Your task to perform on an android device: Search for vegetarian restaurants on Maps Image 0: 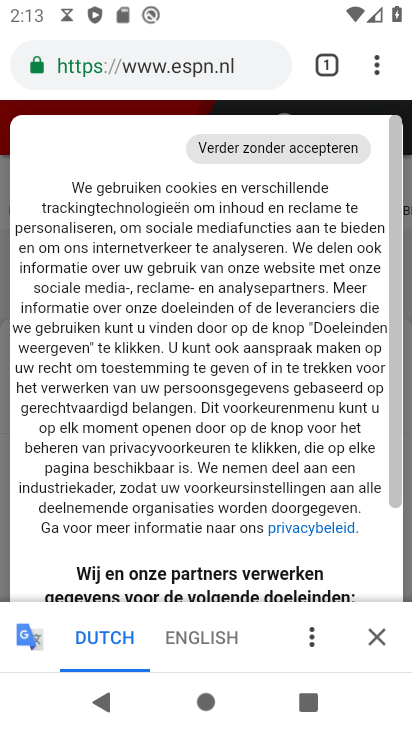
Step 0: press back button
Your task to perform on an android device: Search for vegetarian restaurants on Maps Image 1: 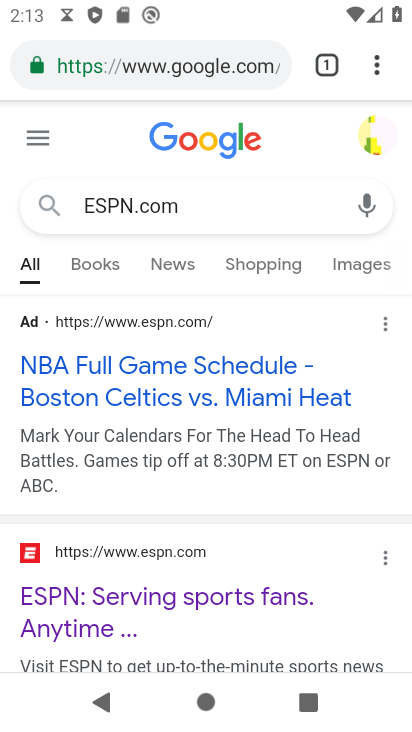
Step 1: press back button
Your task to perform on an android device: Search for vegetarian restaurants on Maps Image 2: 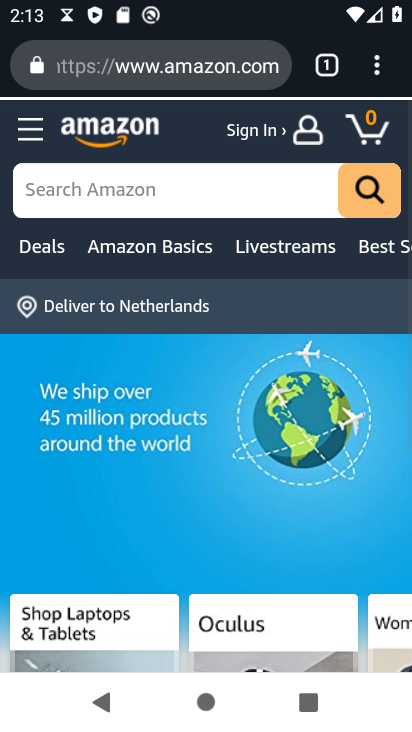
Step 2: press back button
Your task to perform on an android device: Search for vegetarian restaurants on Maps Image 3: 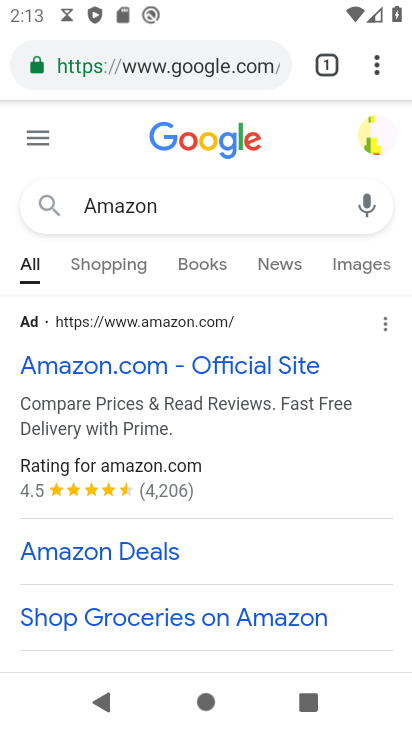
Step 3: press back button
Your task to perform on an android device: Search for vegetarian restaurants on Maps Image 4: 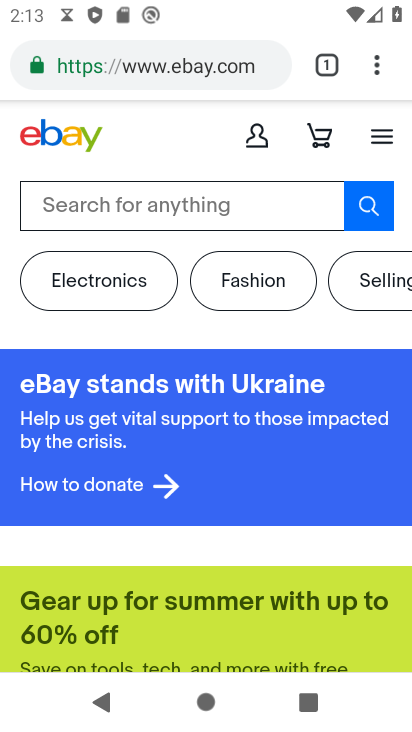
Step 4: press back button
Your task to perform on an android device: Search for vegetarian restaurants on Maps Image 5: 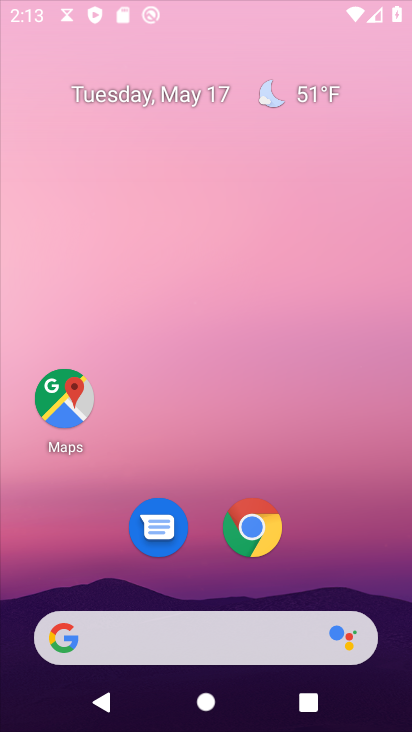
Step 5: press back button
Your task to perform on an android device: Search for vegetarian restaurants on Maps Image 6: 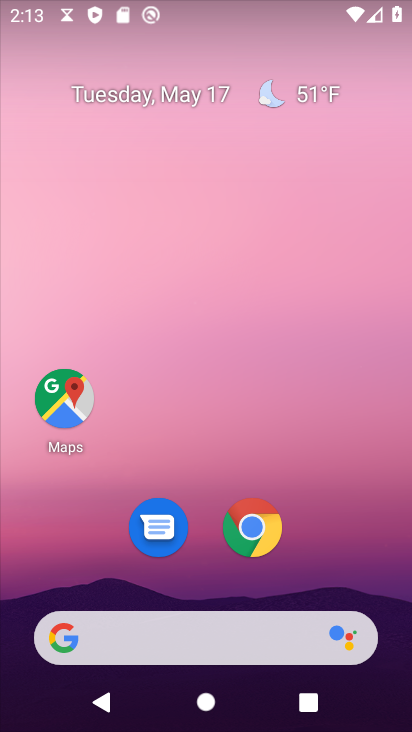
Step 6: click (64, 397)
Your task to perform on an android device: Search for vegetarian restaurants on Maps Image 7: 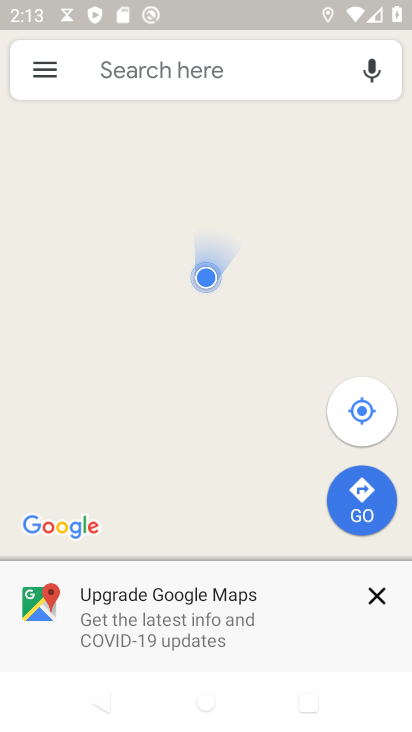
Step 7: click (170, 77)
Your task to perform on an android device: Search for vegetarian restaurants on Maps Image 8: 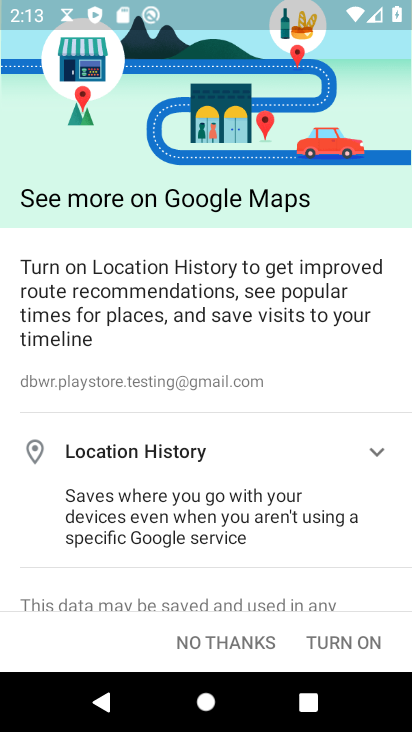
Step 8: click (237, 643)
Your task to perform on an android device: Search for vegetarian restaurants on Maps Image 9: 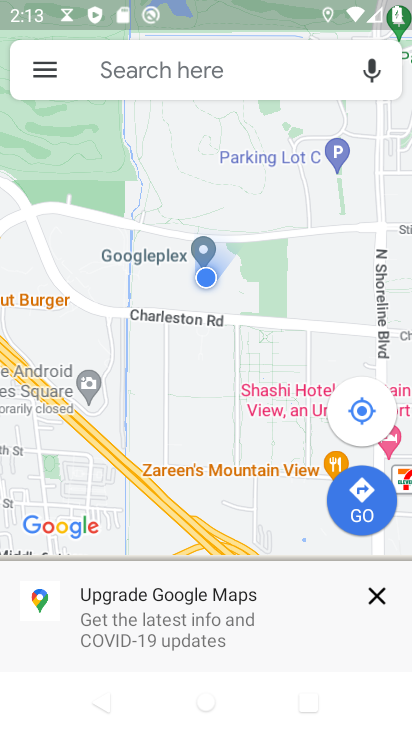
Step 9: click (162, 75)
Your task to perform on an android device: Search for vegetarian restaurants on Maps Image 10: 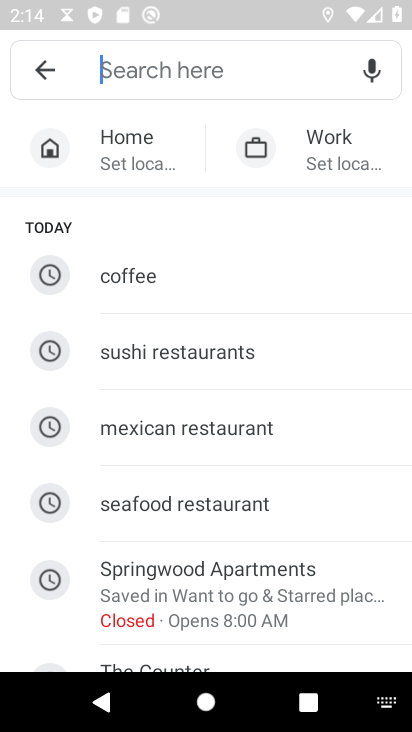
Step 10: type "vegetarian restaurant"
Your task to perform on an android device: Search for vegetarian restaurants on Maps Image 11: 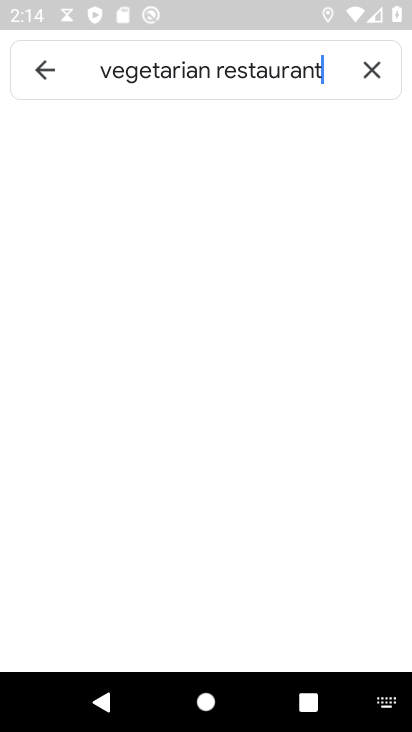
Step 11: type ""
Your task to perform on an android device: Search for vegetarian restaurants on Maps Image 12: 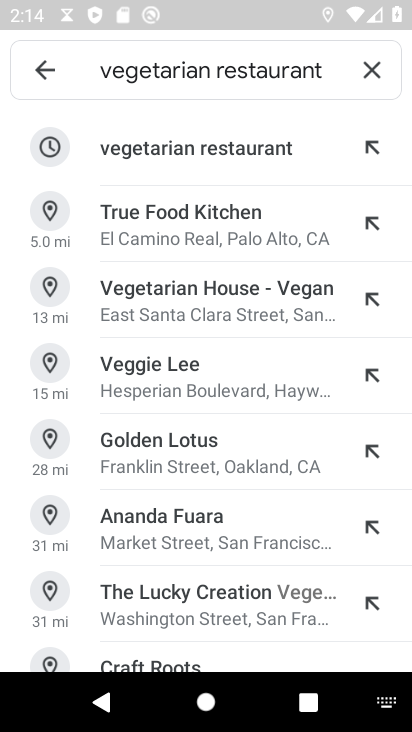
Step 12: click (195, 151)
Your task to perform on an android device: Search for vegetarian restaurants on Maps Image 13: 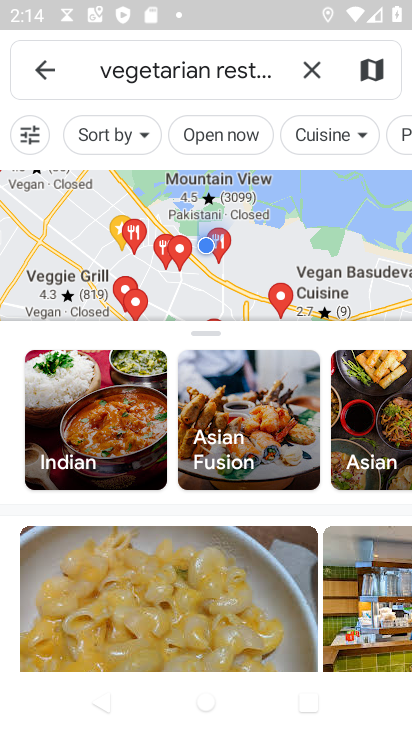
Step 13: task complete